Your task to perform on an android device: See recent photos Image 0: 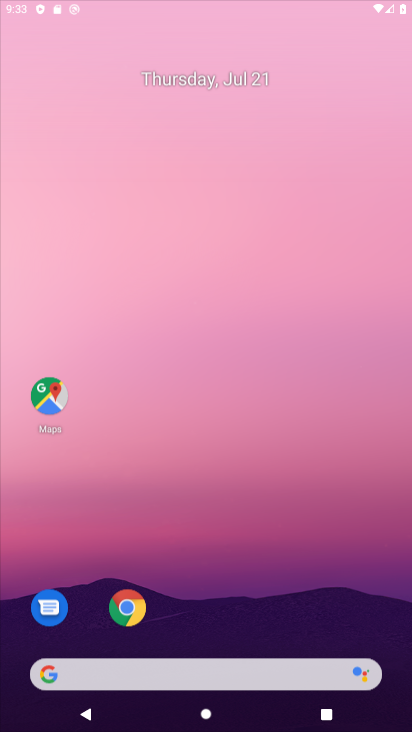
Step 0: drag from (249, 579) to (207, 212)
Your task to perform on an android device: See recent photos Image 1: 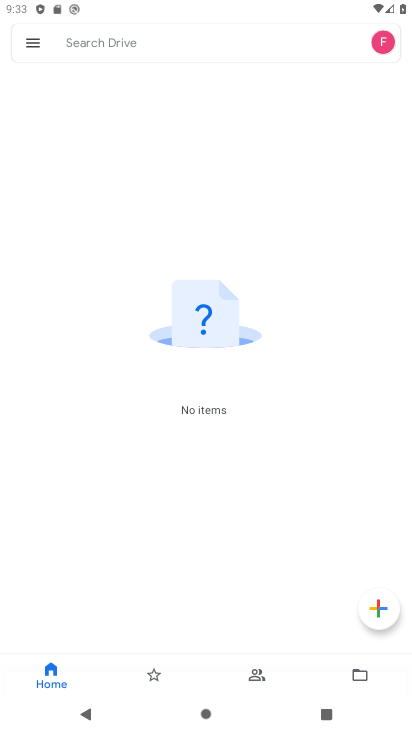
Step 1: press home button
Your task to perform on an android device: See recent photos Image 2: 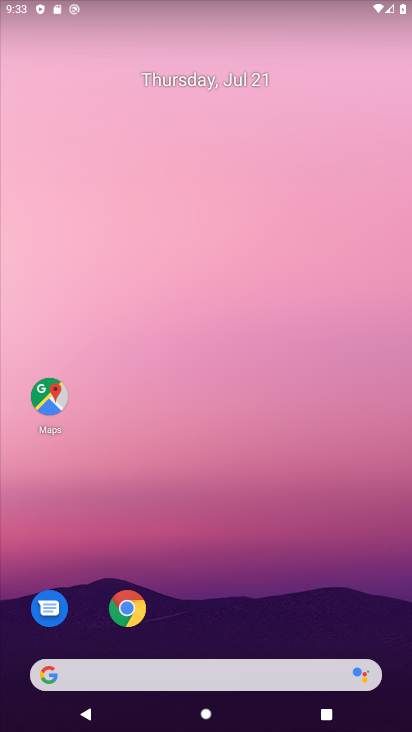
Step 2: drag from (194, 671) to (187, 113)
Your task to perform on an android device: See recent photos Image 3: 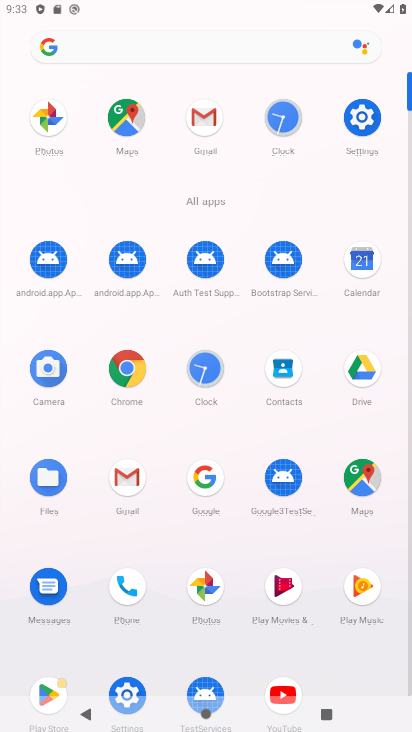
Step 3: click (205, 574)
Your task to perform on an android device: See recent photos Image 4: 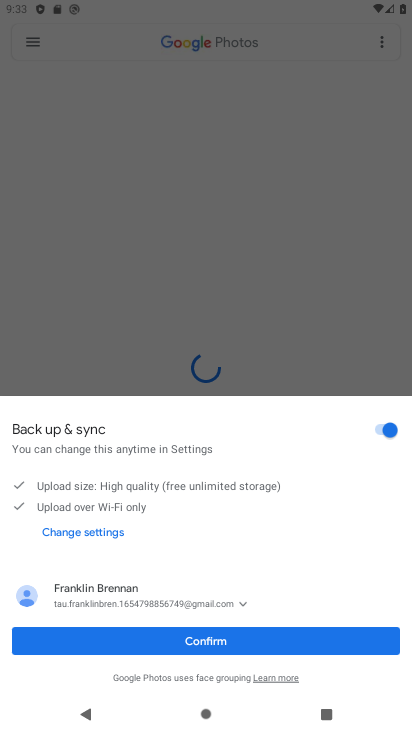
Step 4: click (203, 644)
Your task to perform on an android device: See recent photos Image 5: 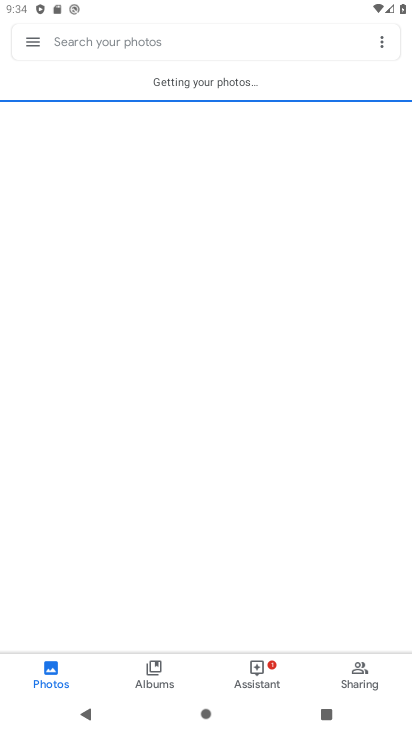
Step 5: click (43, 668)
Your task to perform on an android device: See recent photos Image 6: 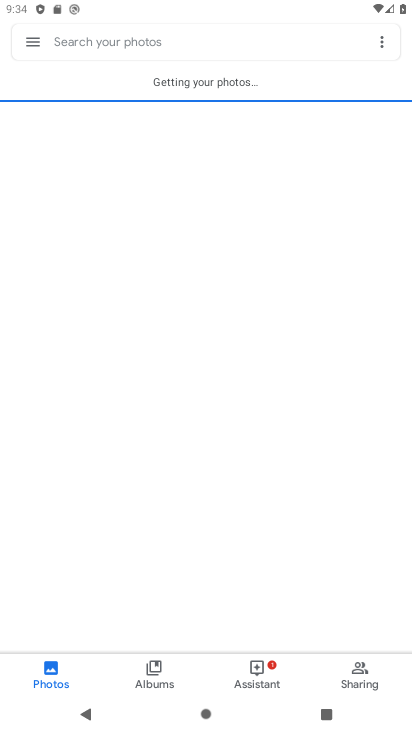
Step 6: task complete